Your task to perform on an android device: Go to eBay Image 0: 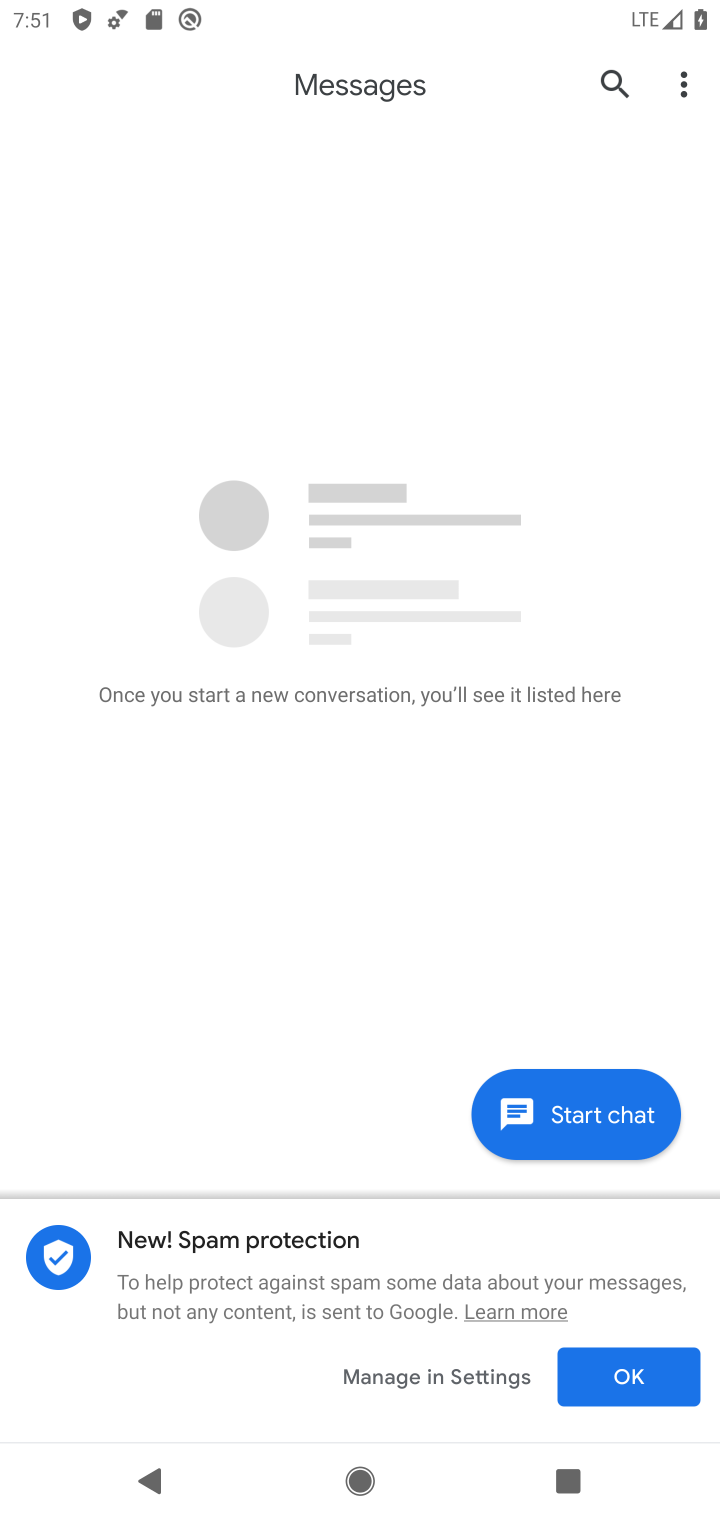
Step 0: press home button
Your task to perform on an android device: Go to eBay Image 1: 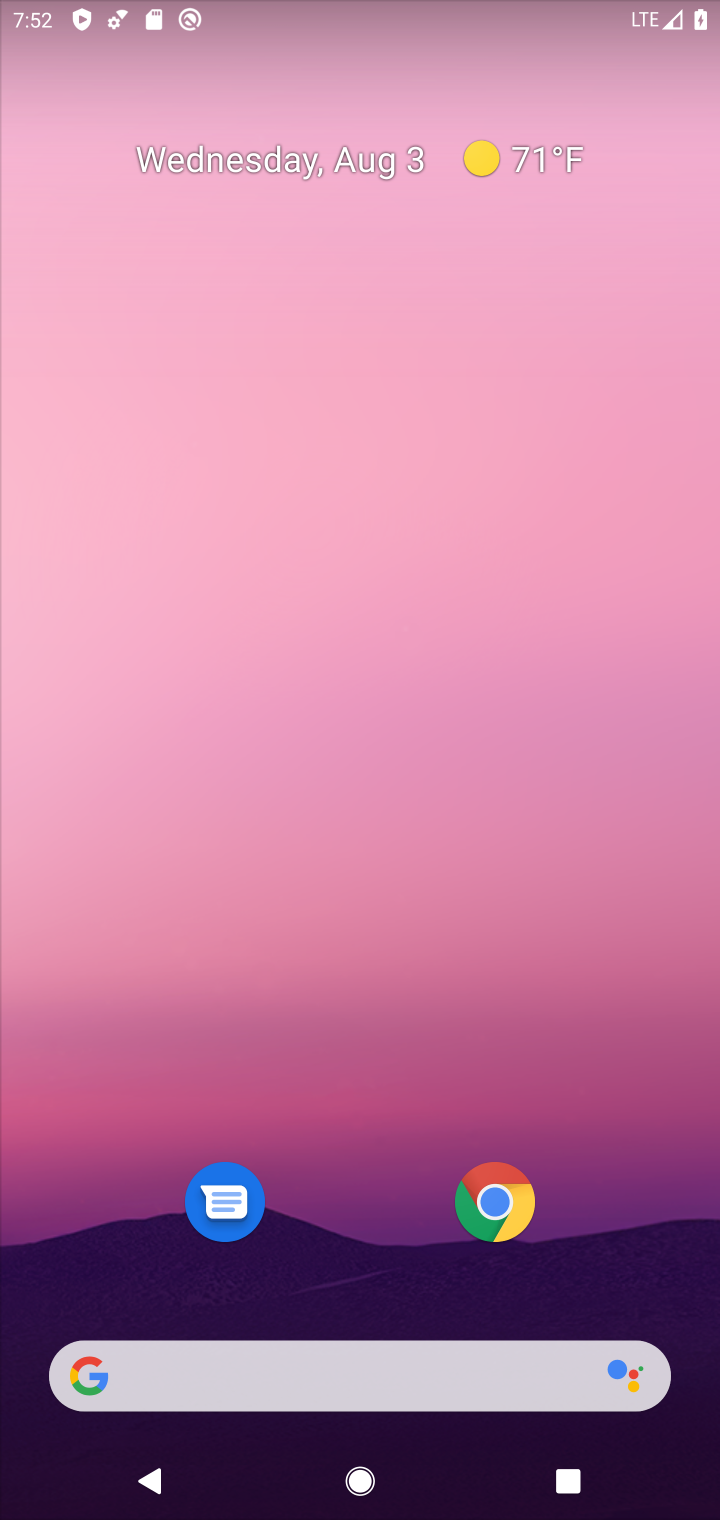
Step 1: click (494, 1204)
Your task to perform on an android device: Go to eBay Image 2: 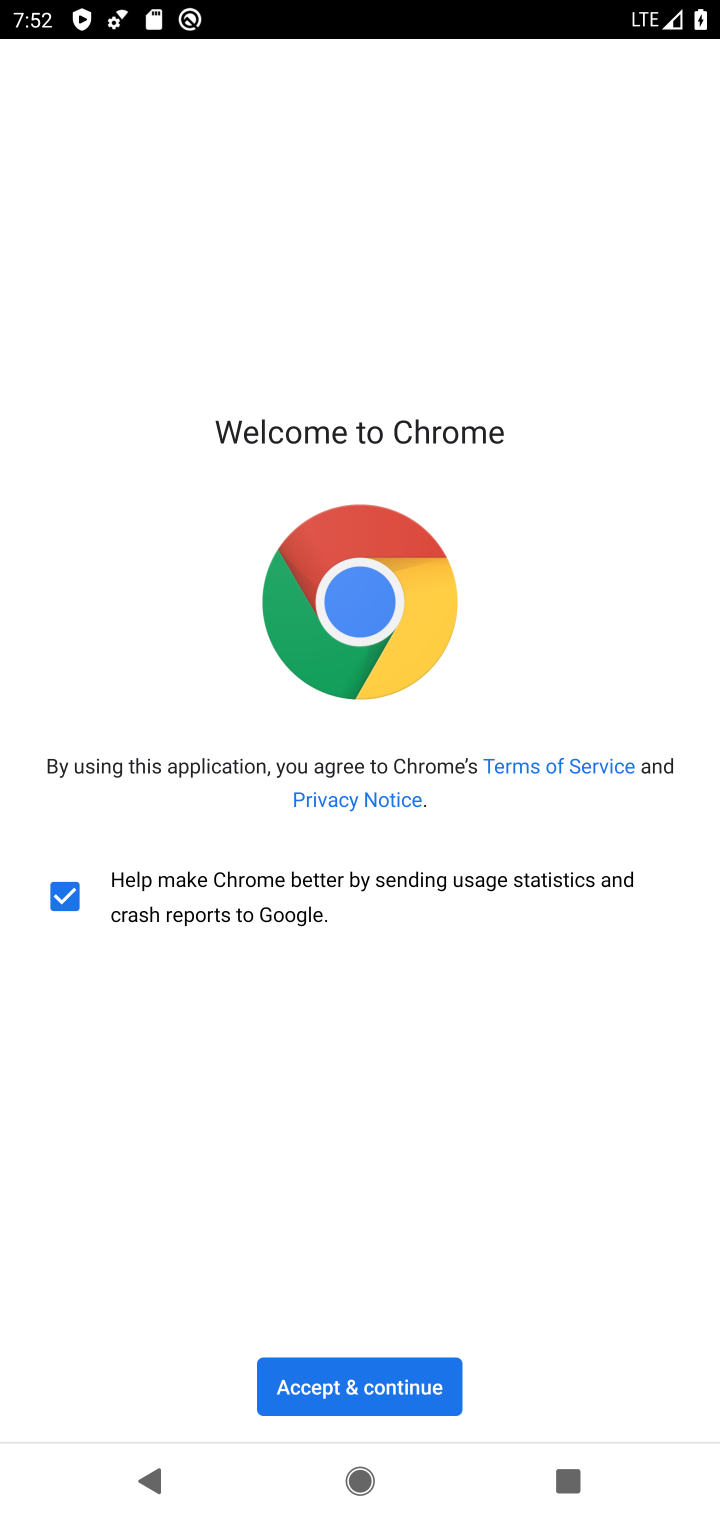
Step 2: click (345, 1384)
Your task to perform on an android device: Go to eBay Image 3: 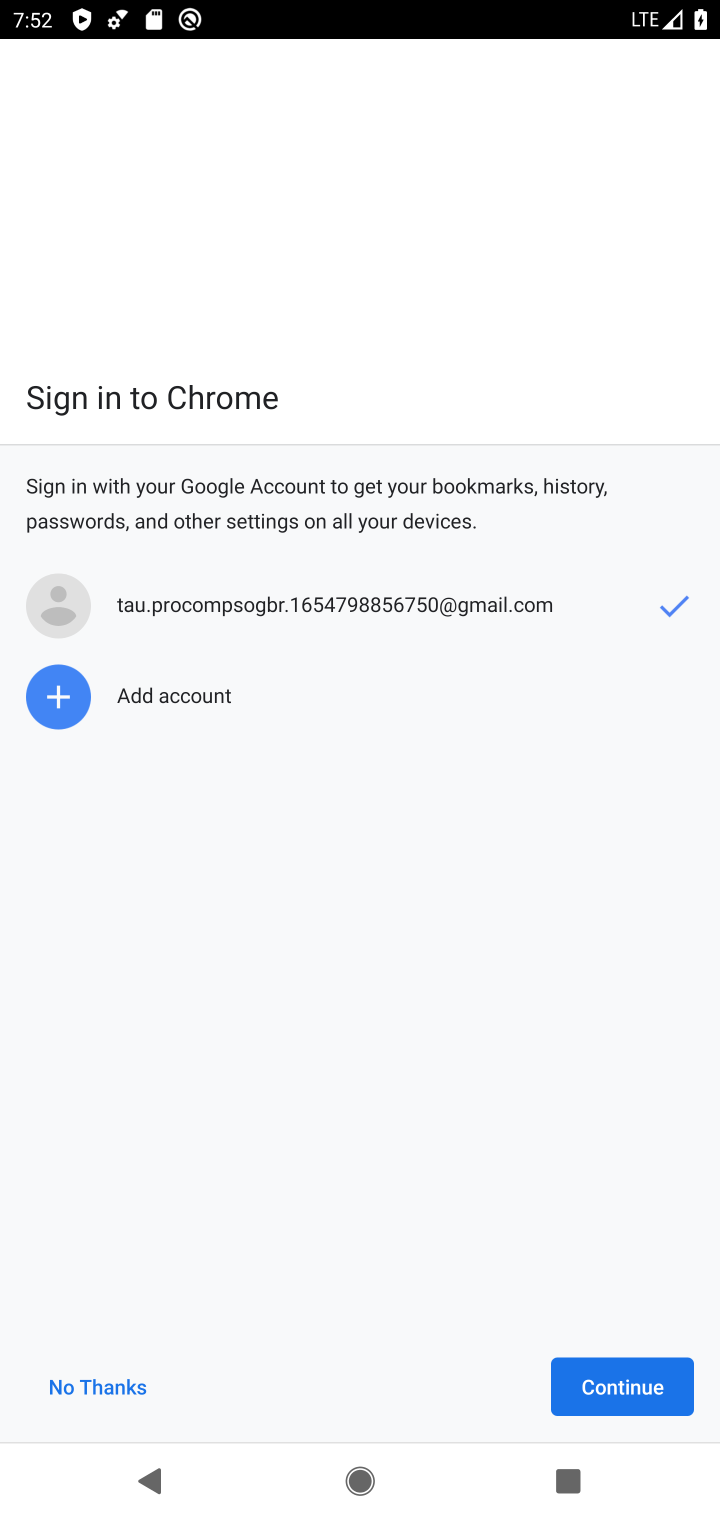
Step 3: click (623, 1376)
Your task to perform on an android device: Go to eBay Image 4: 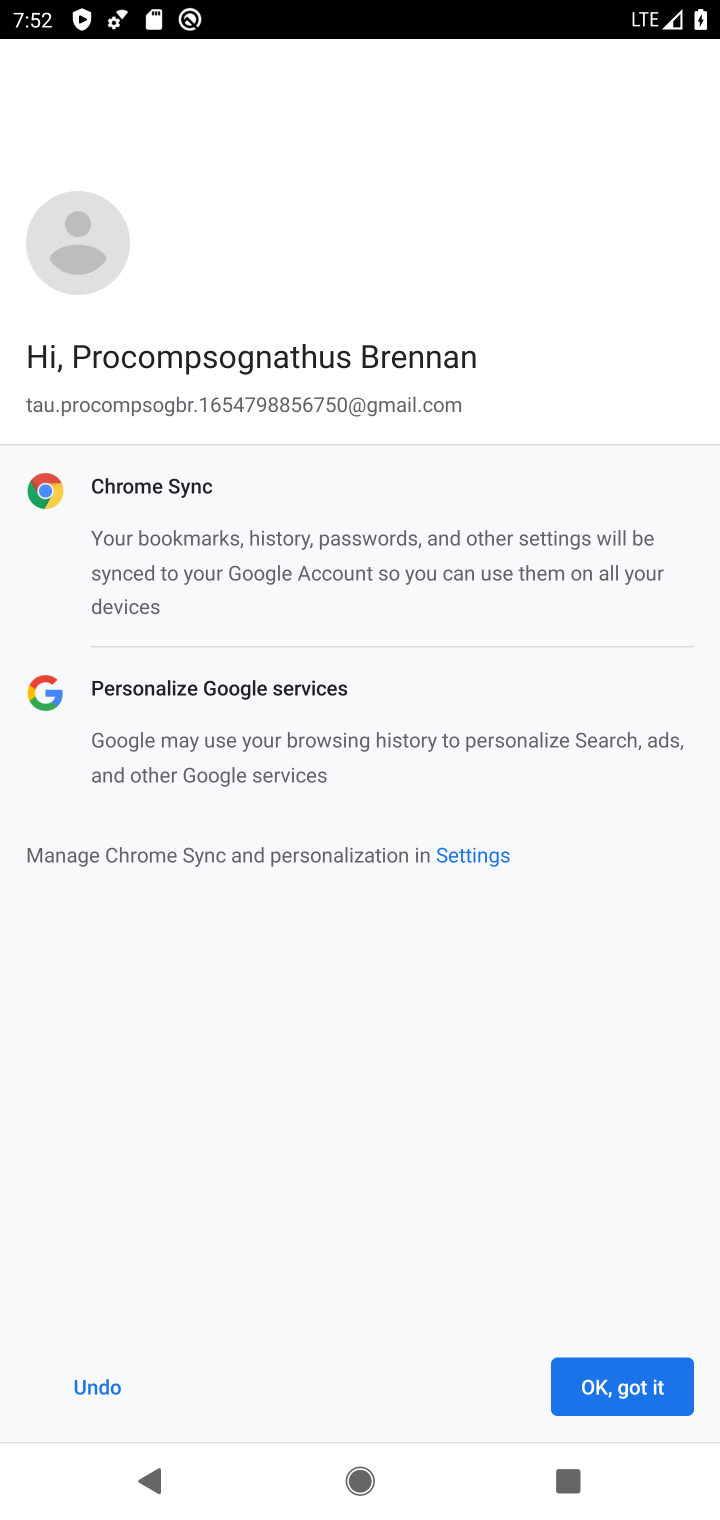
Step 4: click (630, 1389)
Your task to perform on an android device: Go to eBay Image 5: 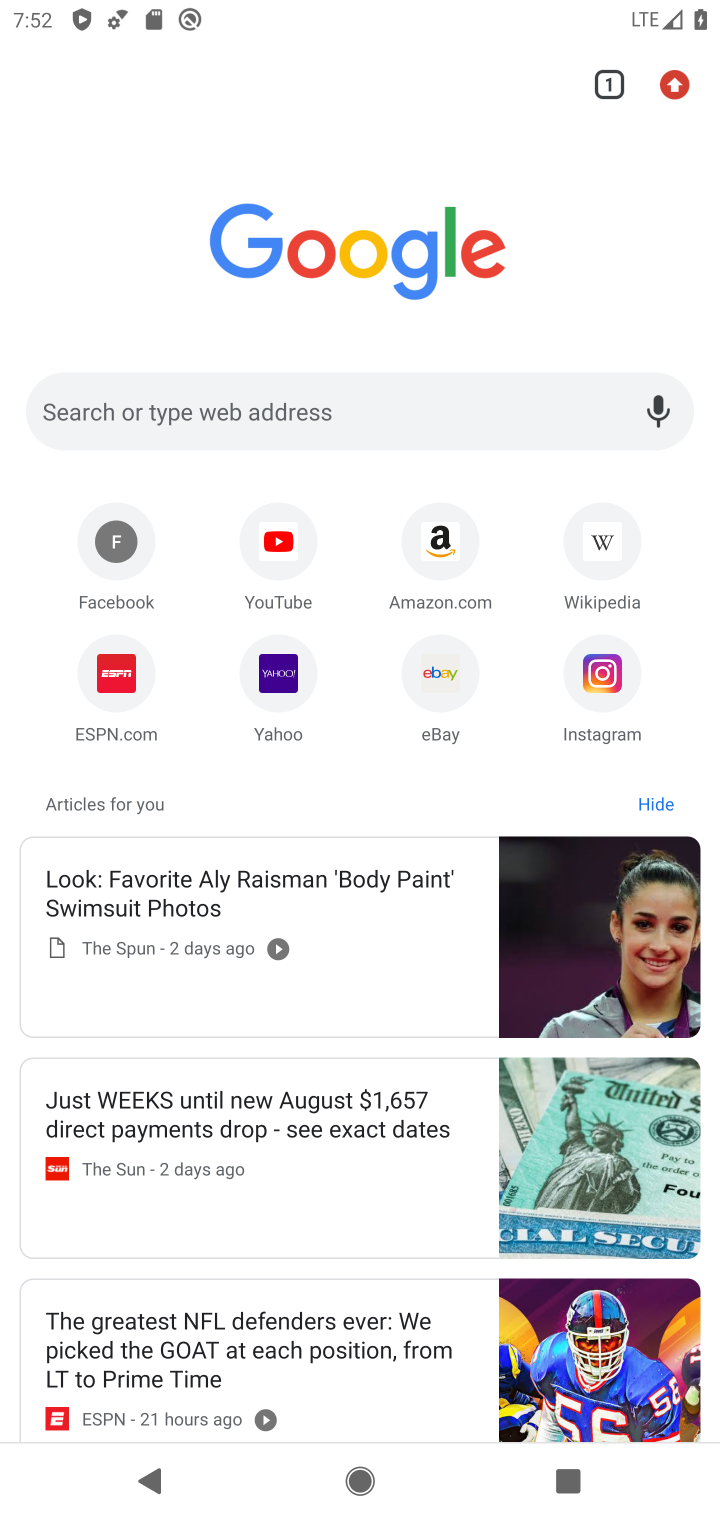
Step 5: click (445, 675)
Your task to perform on an android device: Go to eBay Image 6: 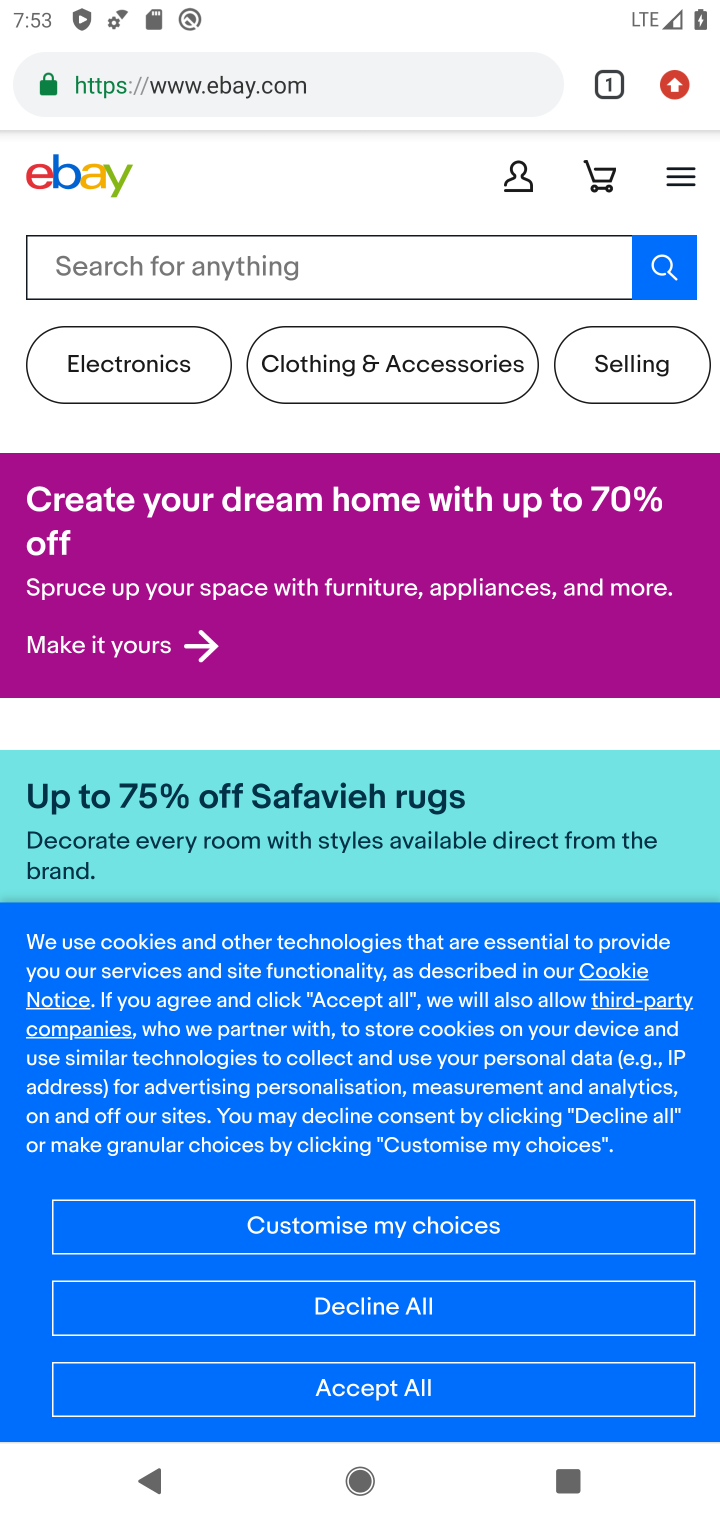
Step 6: task complete